Your task to perform on an android device: manage bookmarks in the chrome app Image 0: 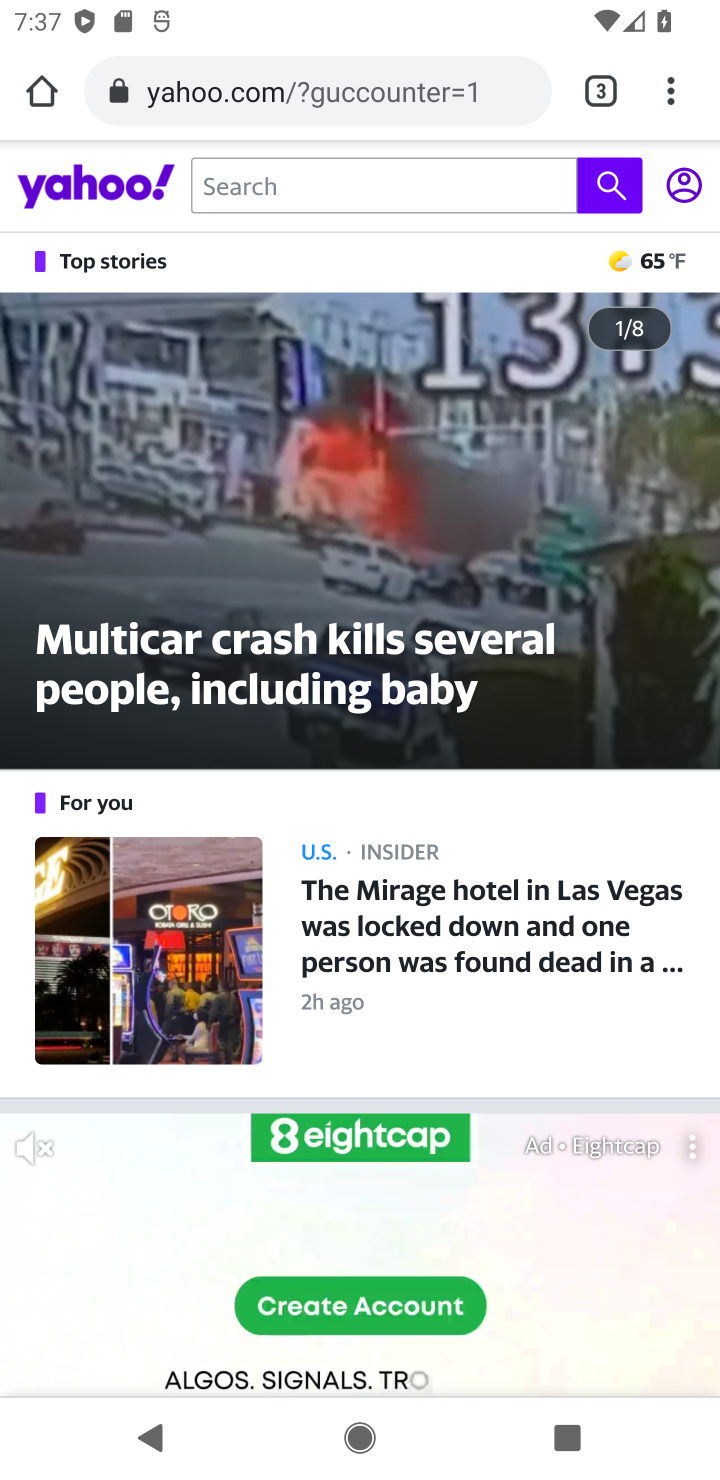
Step 0: press home button
Your task to perform on an android device: manage bookmarks in the chrome app Image 1: 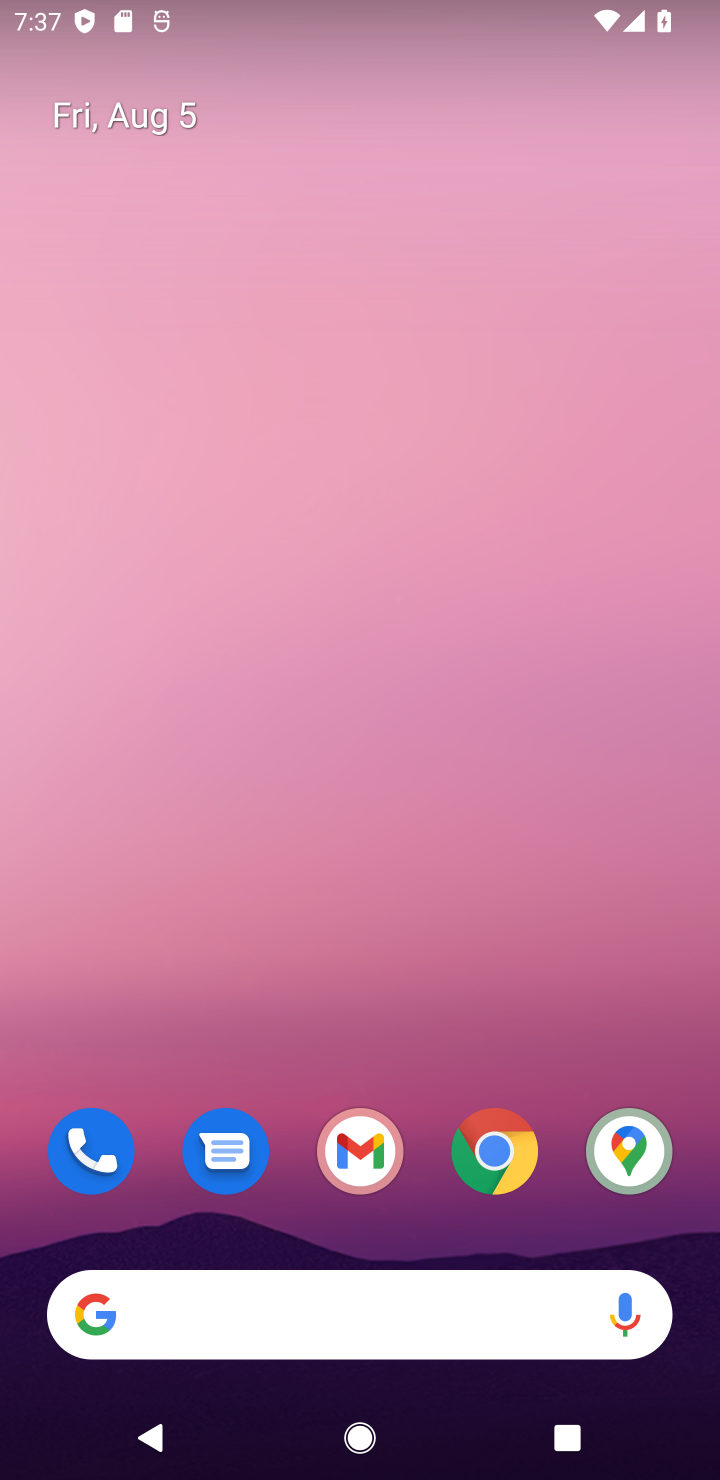
Step 1: drag from (336, 1238) to (354, 0)
Your task to perform on an android device: manage bookmarks in the chrome app Image 2: 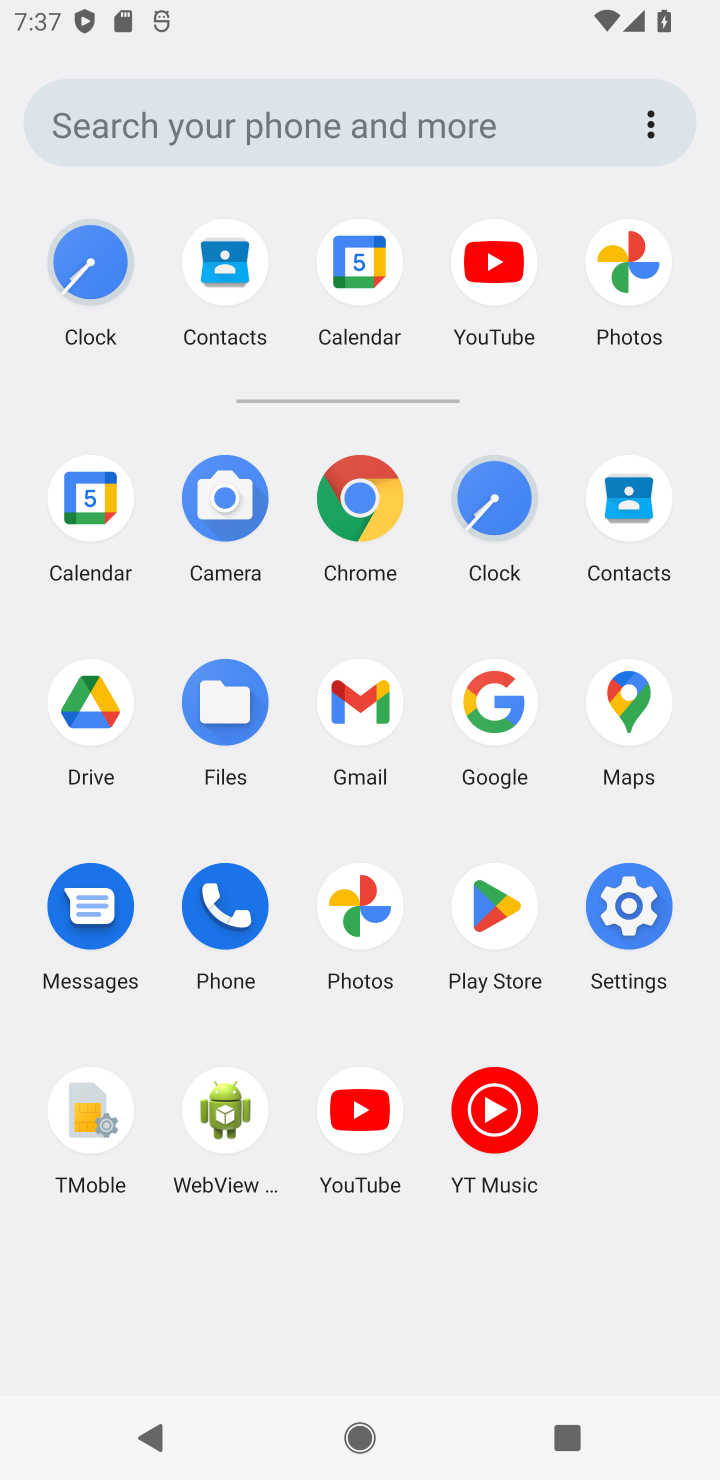
Step 2: click (384, 492)
Your task to perform on an android device: manage bookmarks in the chrome app Image 3: 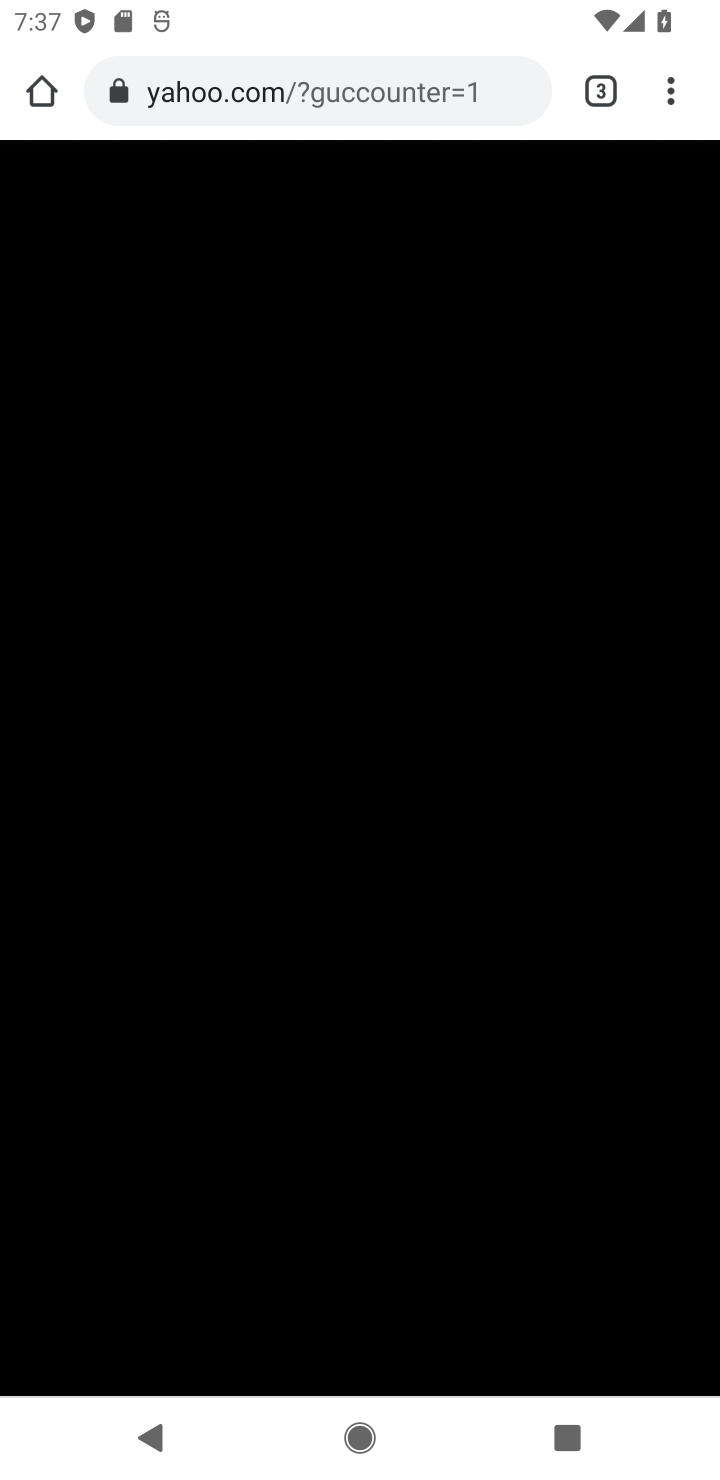
Step 3: drag from (663, 87) to (391, 637)
Your task to perform on an android device: manage bookmarks in the chrome app Image 4: 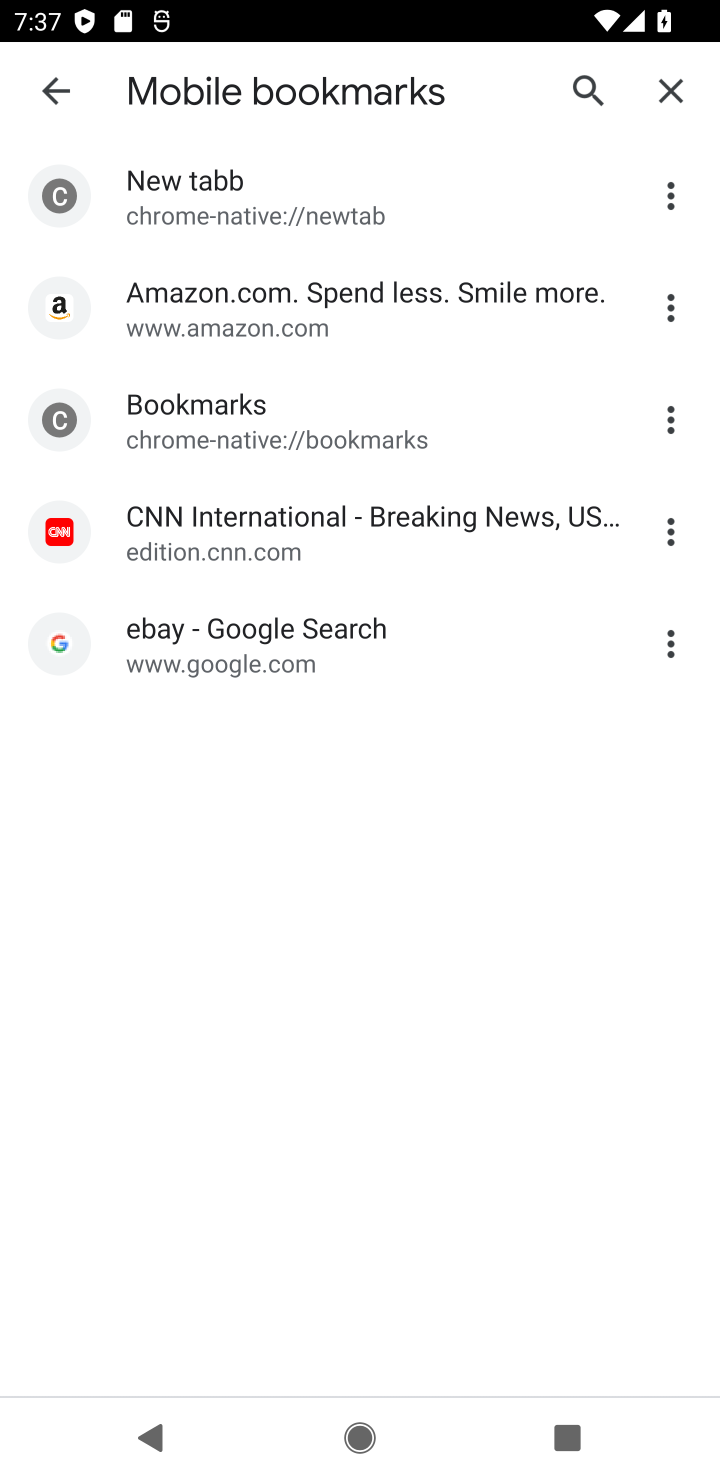
Step 4: click (649, 189)
Your task to perform on an android device: manage bookmarks in the chrome app Image 5: 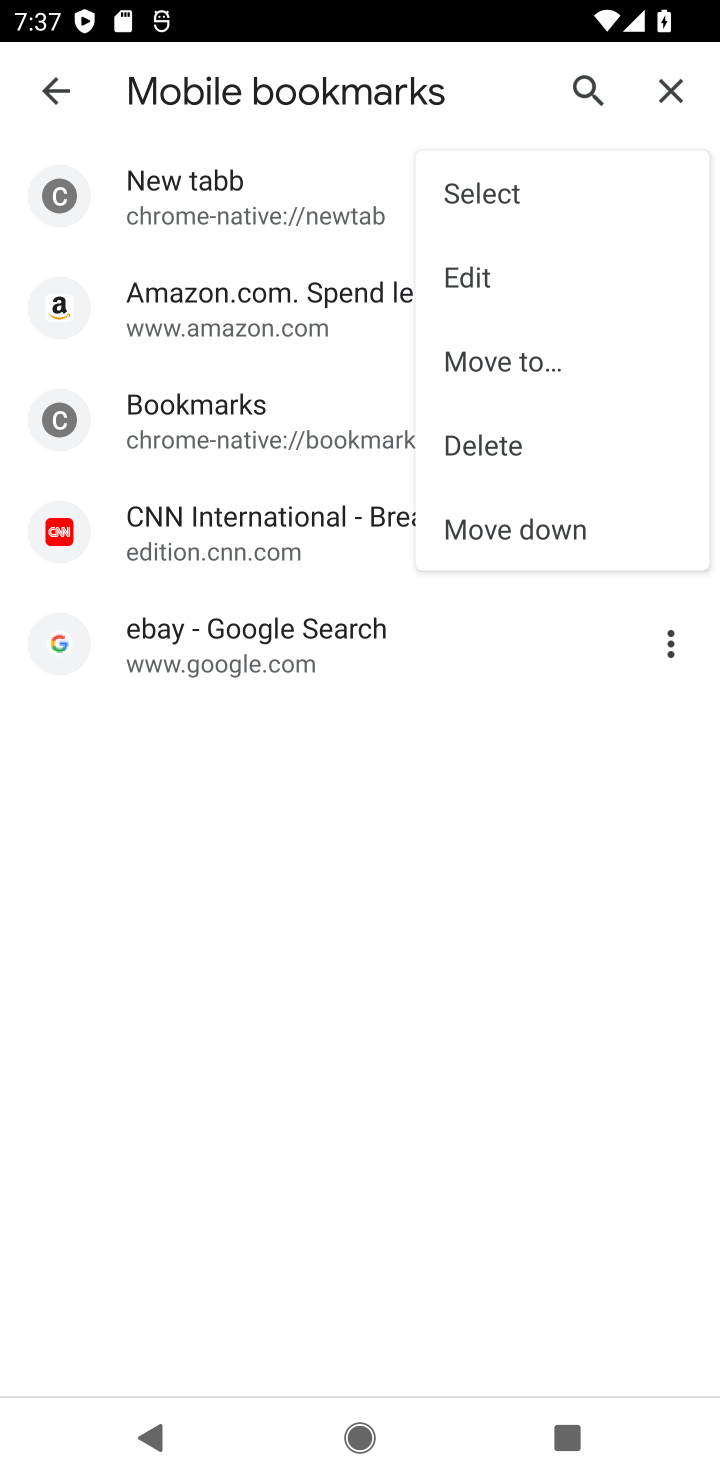
Step 5: click (494, 270)
Your task to perform on an android device: manage bookmarks in the chrome app Image 6: 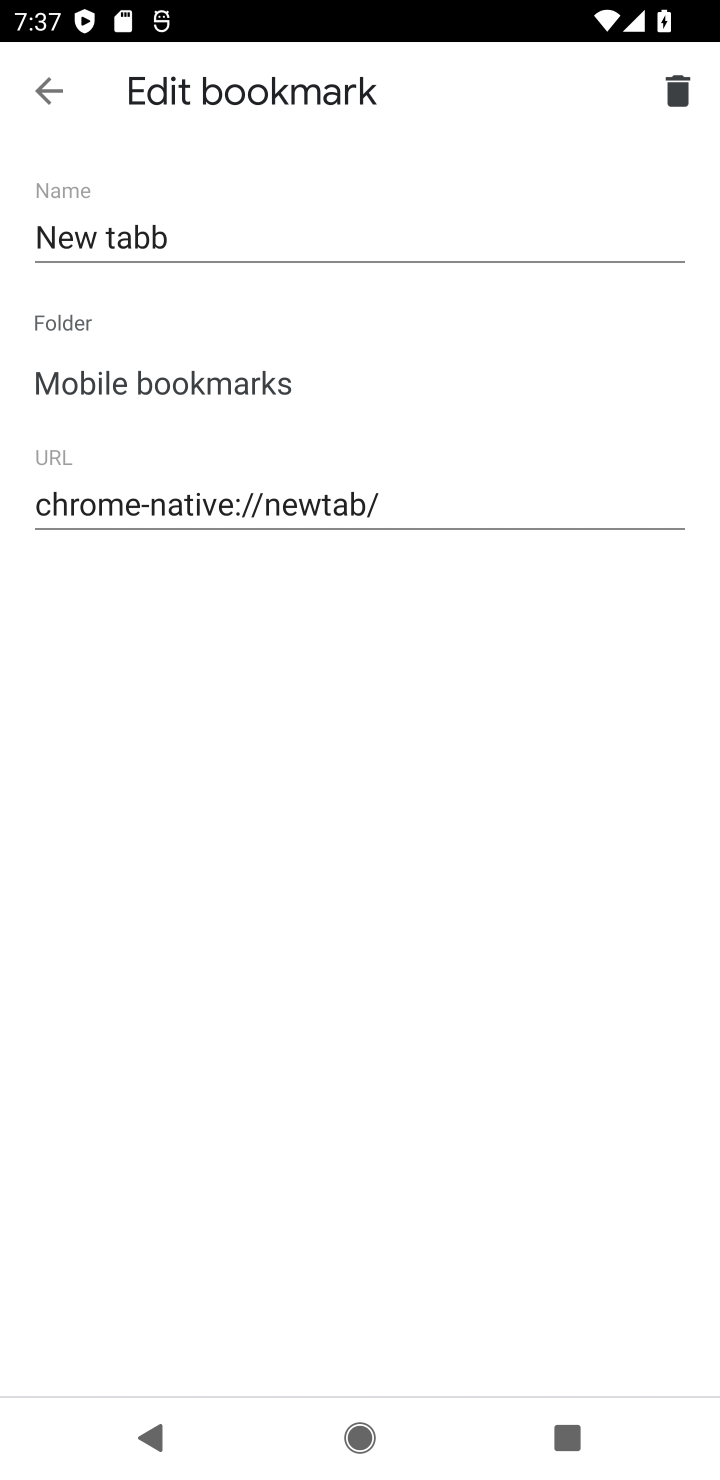
Step 6: task complete